Your task to perform on an android device: Open wifi settings Image 0: 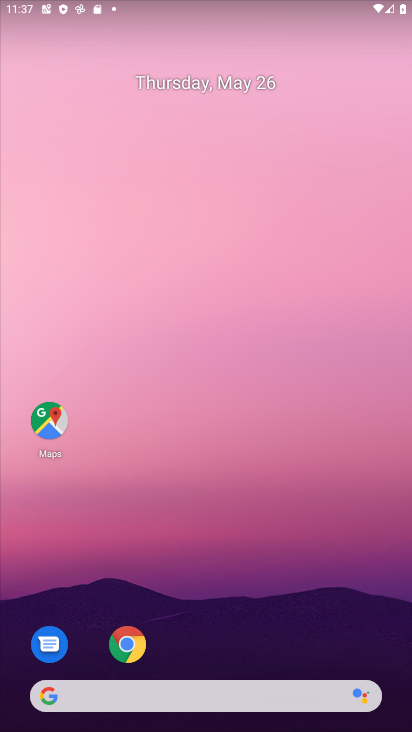
Step 0: drag from (341, 622) to (300, 21)
Your task to perform on an android device: Open wifi settings Image 1: 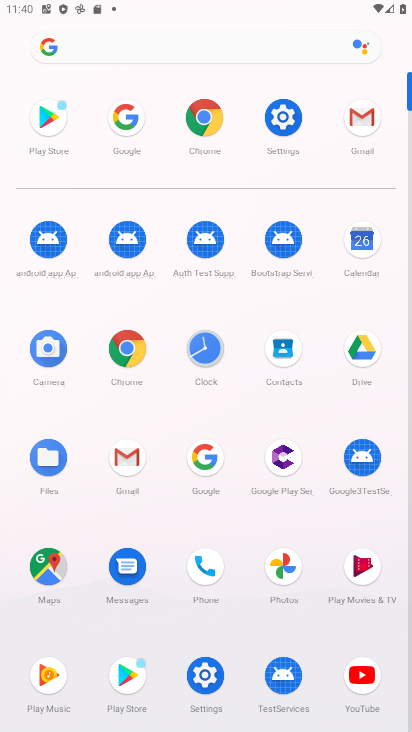
Step 1: click (196, 678)
Your task to perform on an android device: Open wifi settings Image 2: 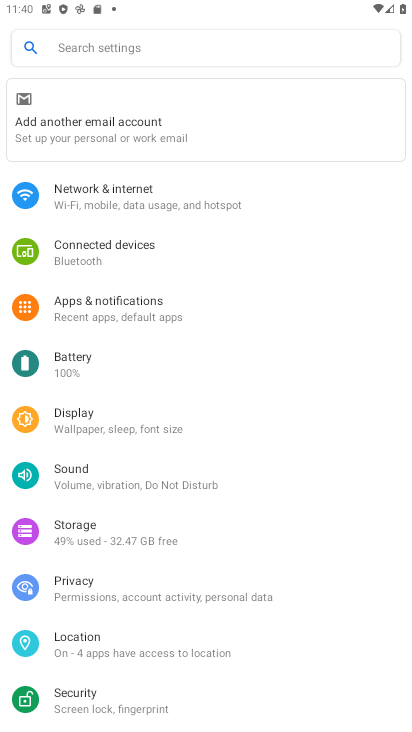
Step 2: click (139, 175)
Your task to perform on an android device: Open wifi settings Image 3: 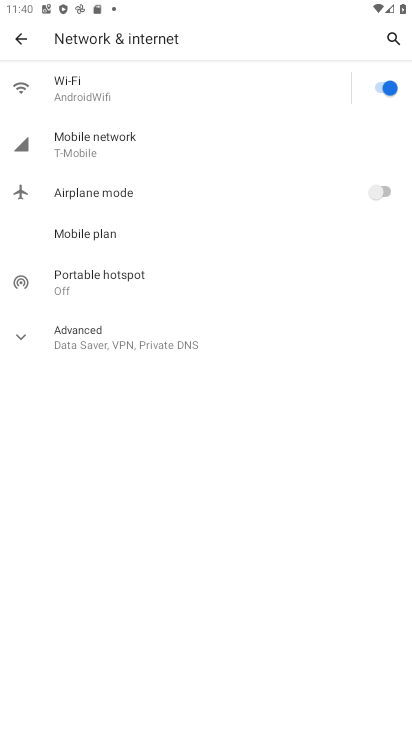
Step 3: click (179, 101)
Your task to perform on an android device: Open wifi settings Image 4: 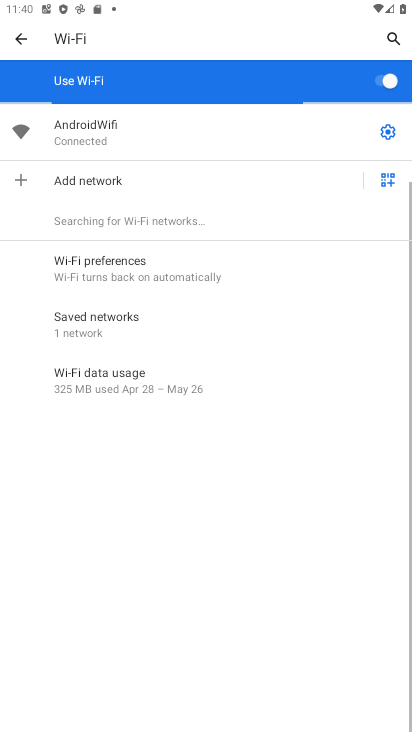
Step 4: task complete